Your task to perform on an android device: Turn on the flashlight Image 0: 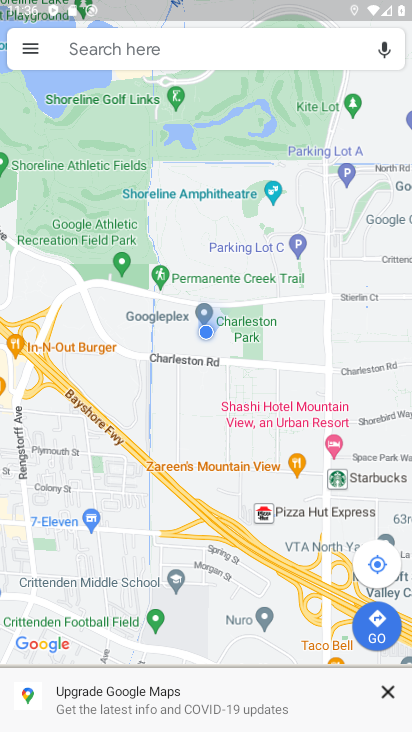
Step 0: press home button
Your task to perform on an android device: Turn on the flashlight Image 1: 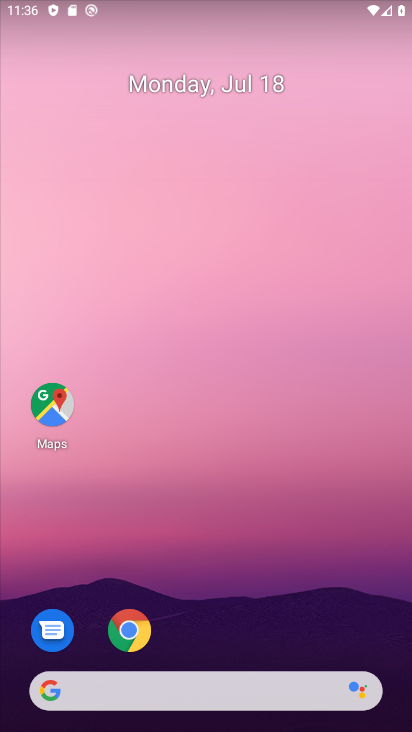
Step 1: drag from (233, 604) to (285, 51)
Your task to perform on an android device: Turn on the flashlight Image 2: 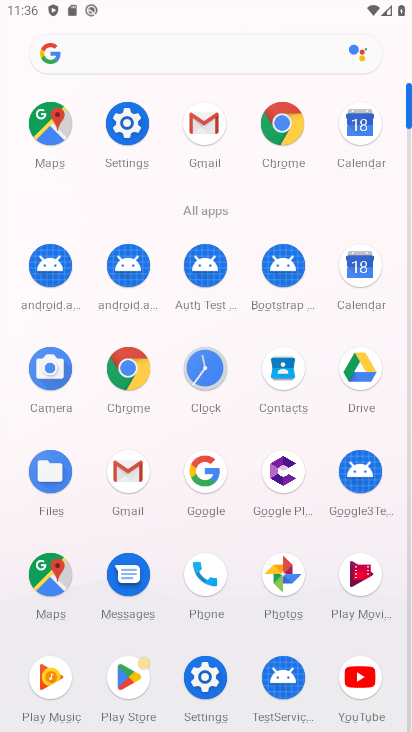
Step 2: click (133, 151)
Your task to perform on an android device: Turn on the flashlight Image 3: 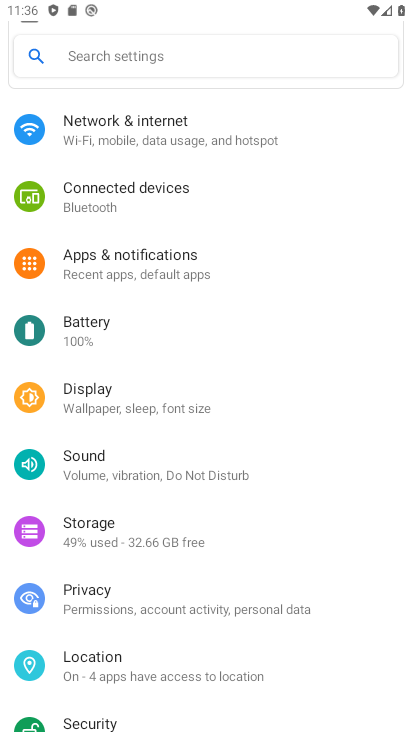
Step 3: click (200, 51)
Your task to perform on an android device: Turn on the flashlight Image 4: 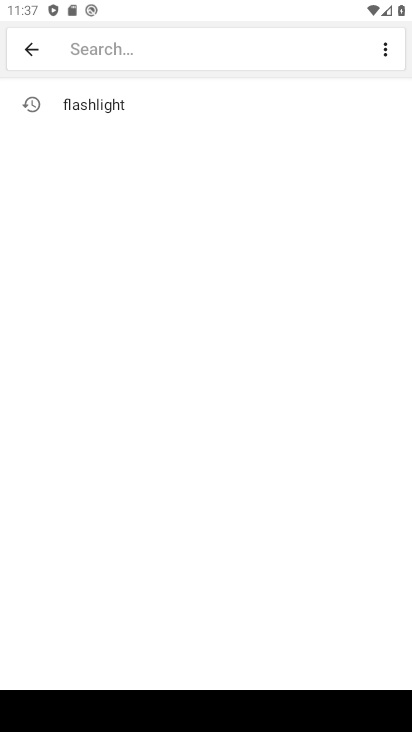
Step 4: type "flashlight"
Your task to perform on an android device: Turn on the flashlight Image 5: 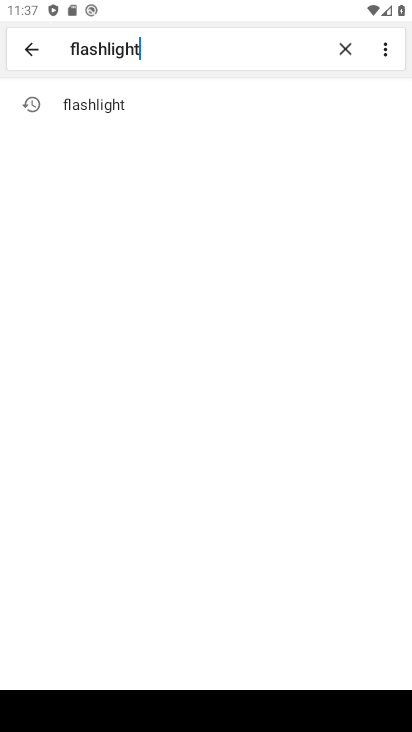
Step 5: click (117, 115)
Your task to perform on an android device: Turn on the flashlight Image 6: 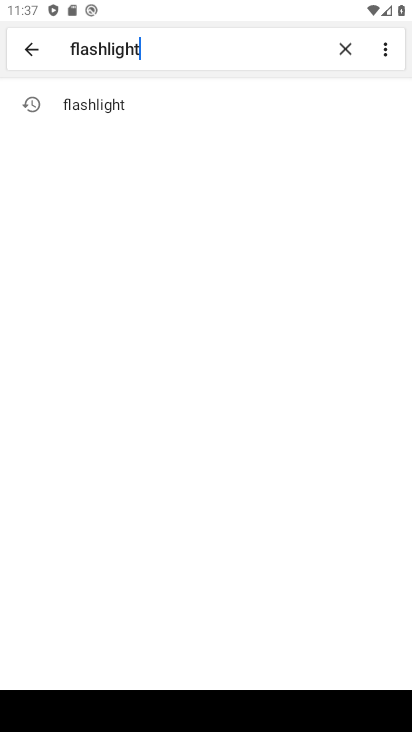
Step 6: click (117, 115)
Your task to perform on an android device: Turn on the flashlight Image 7: 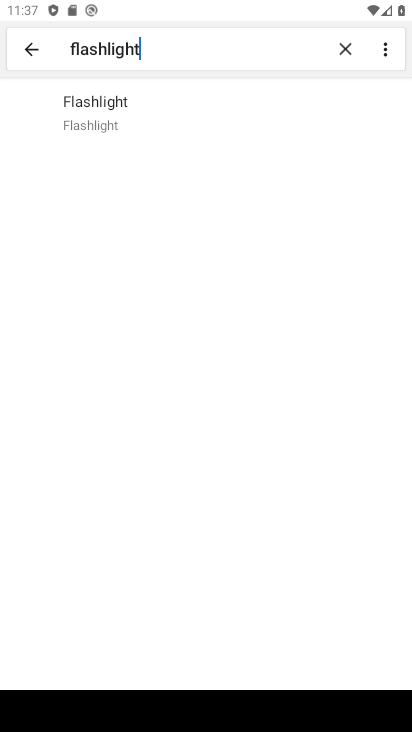
Step 7: click (117, 115)
Your task to perform on an android device: Turn on the flashlight Image 8: 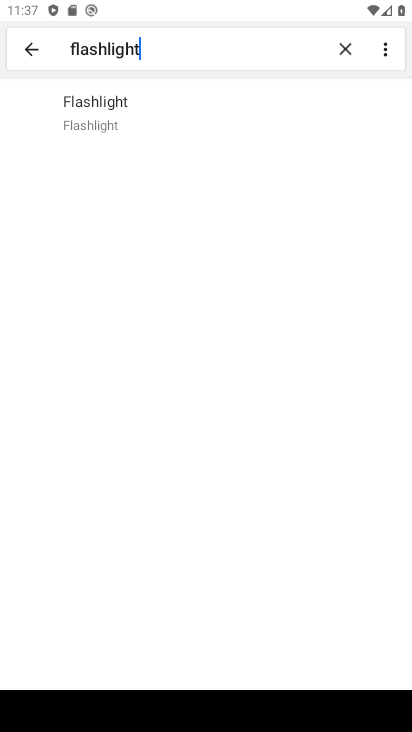
Step 8: task complete